Your task to perform on an android device: set the stopwatch Image 0: 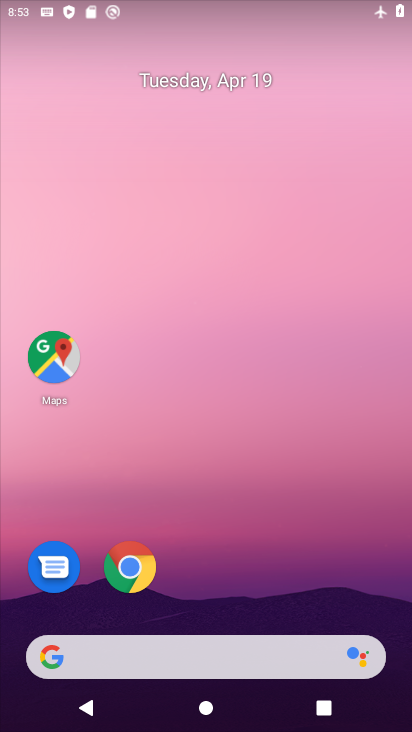
Step 0: drag from (206, 728) to (166, 75)
Your task to perform on an android device: set the stopwatch Image 1: 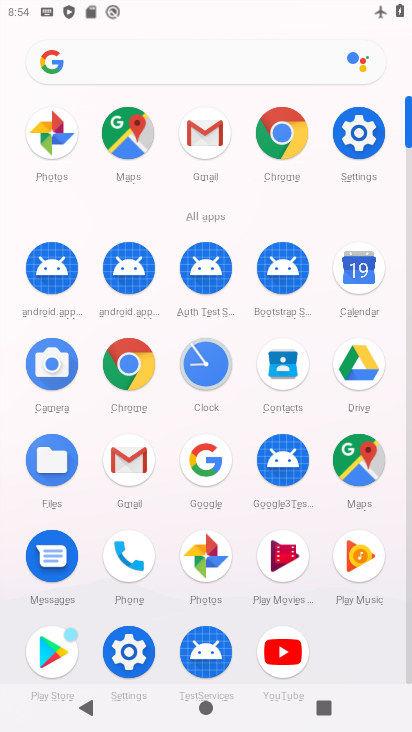
Step 1: click (206, 366)
Your task to perform on an android device: set the stopwatch Image 2: 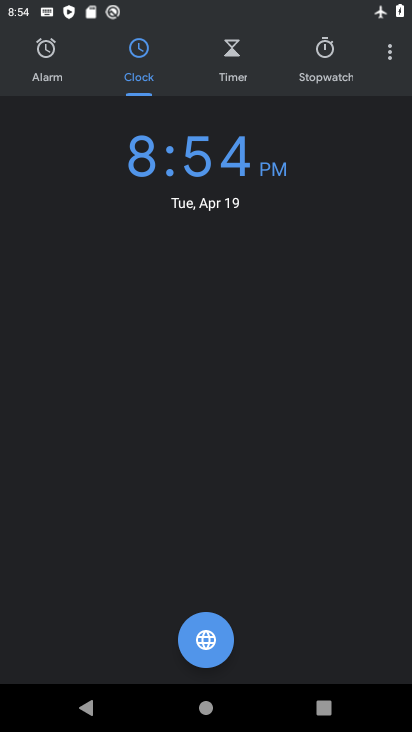
Step 2: click (328, 71)
Your task to perform on an android device: set the stopwatch Image 3: 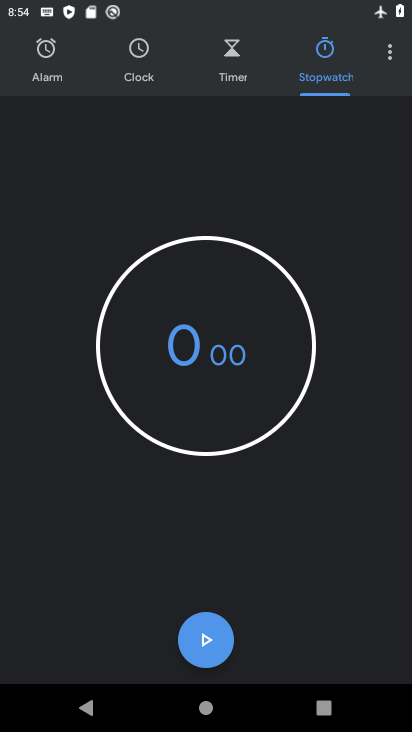
Step 3: click (208, 642)
Your task to perform on an android device: set the stopwatch Image 4: 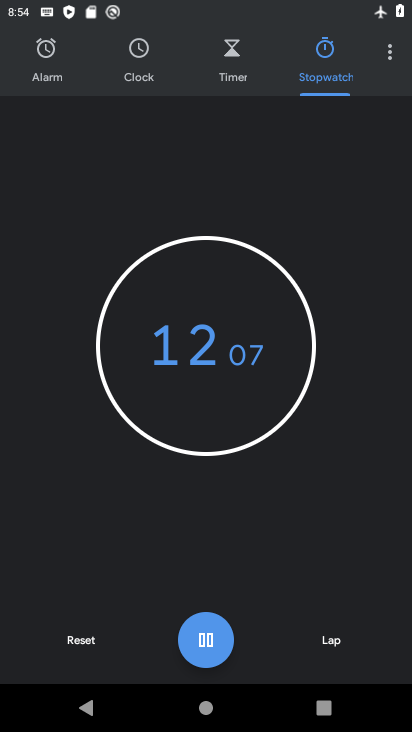
Step 4: task complete